Your task to perform on an android device: turn on data saver in the chrome app Image 0: 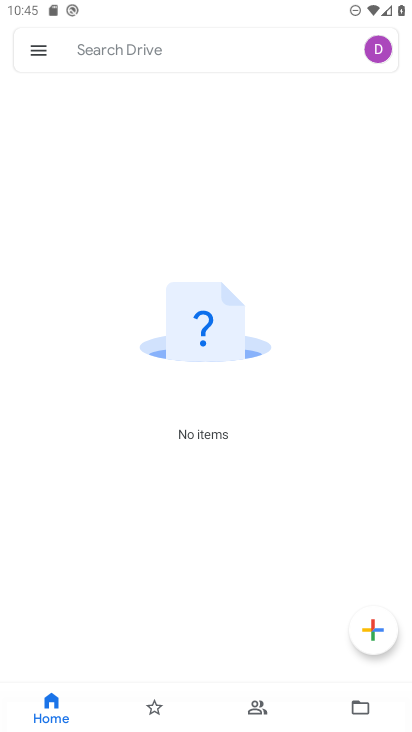
Step 0: press home button
Your task to perform on an android device: turn on data saver in the chrome app Image 1: 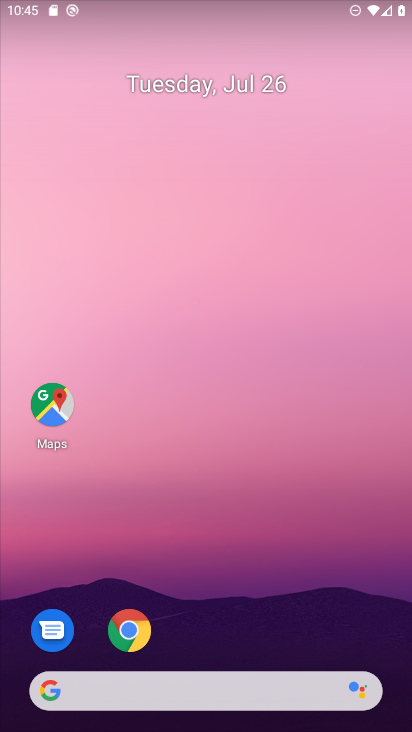
Step 1: click (129, 632)
Your task to perform on an android device: turn on data saver in the chrome app Image 2: 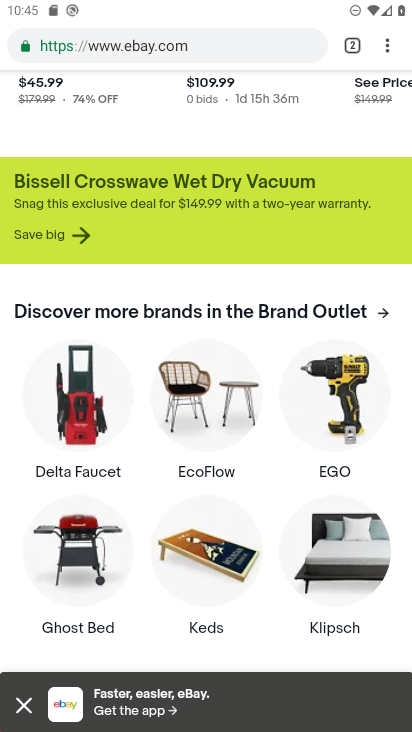
Step 2: click (388, 53)
Your task to perform on an android device: turn on data saver in the chrome app Image 3: 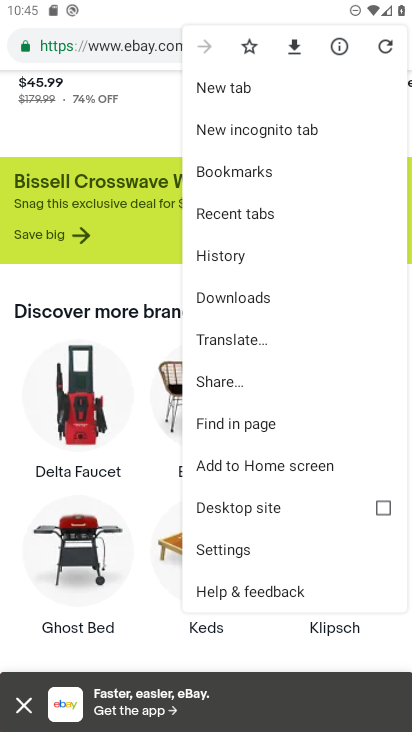
Step 3: click (237, 545)
Your task to perform on an android device: turn on data saver in the chrome app Image 4: 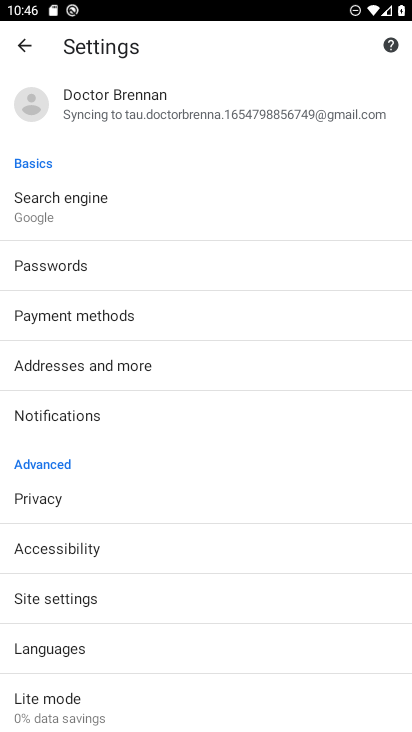
Step 4: click (58, 697)
Your task to perform on an android device: turn on data saver in the chrome app Image 5: 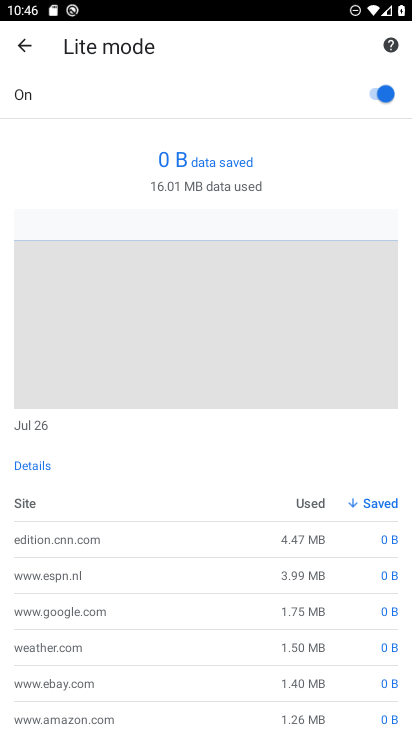
Step 5: task complete